Your task to perform on an android device: see tabs open on other devices in the chrome app Image 0: 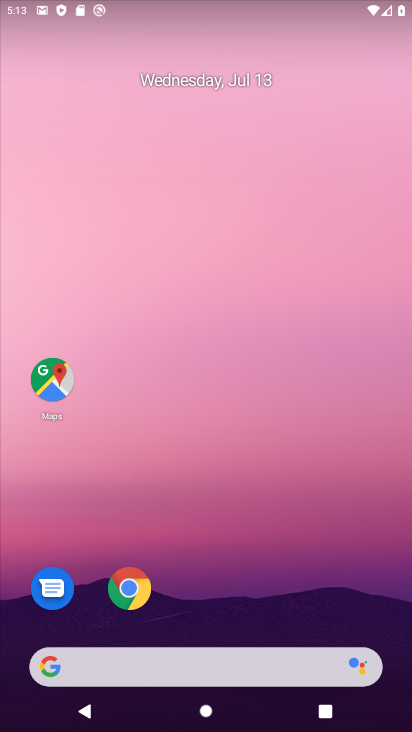
Step 0: press home button
Your task to perform on an android device: see tabs open on other devices in the chrome app Image 1: 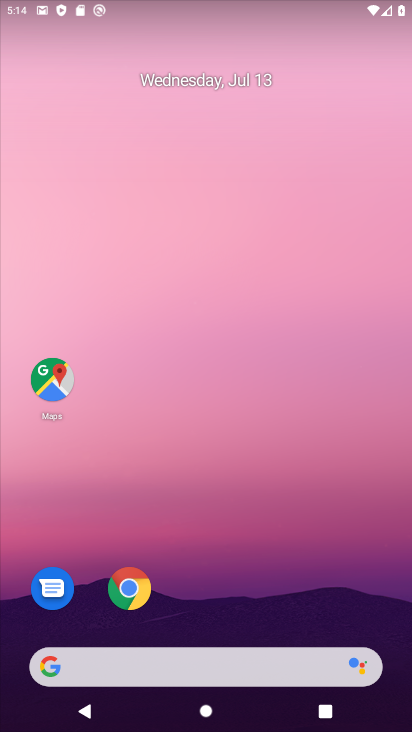
Step 1: drag from (202, 468) to (204, 208)
Your task to perform on an android device: see tabs open on other devices in the chrome app Image 2: 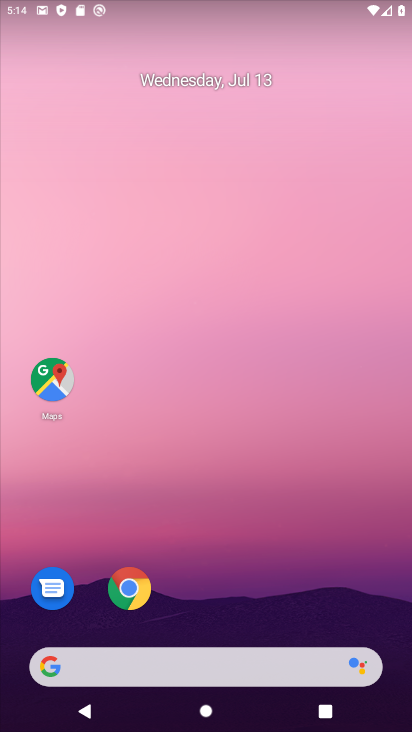
Step 2: click (124, 583)
Your task to perform on an android device: see tabs open on other devices in the chrome app Image 3: 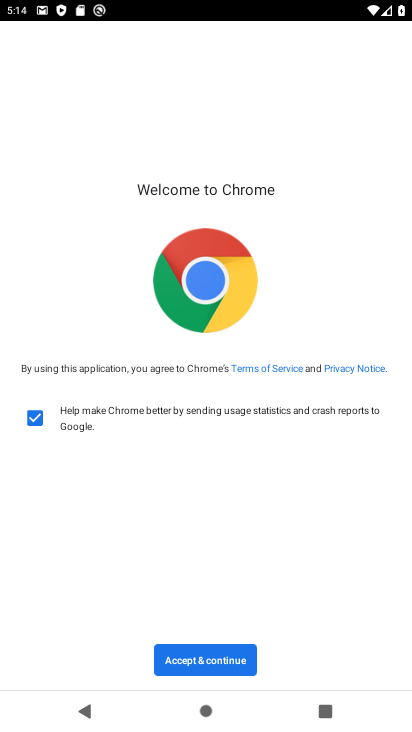
Step 3: click (204, 661)
Your task to perform on an android device: see tabs open on other devices in the chrome app Image 4: 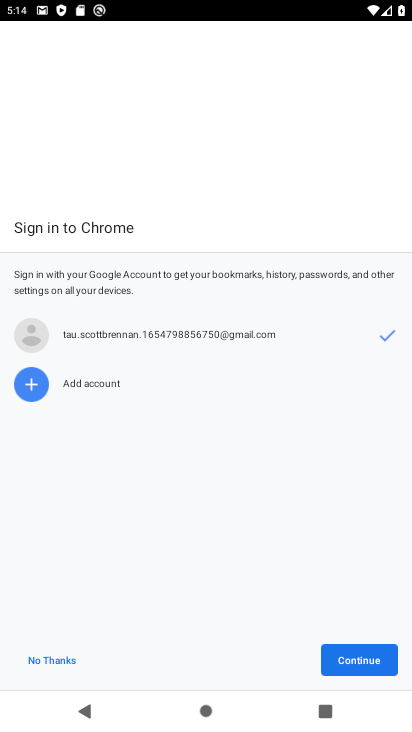
Step 4: click (346, 658)
Your task to perform on an android device: see tabs open on other devices in the chrome app Image 5: 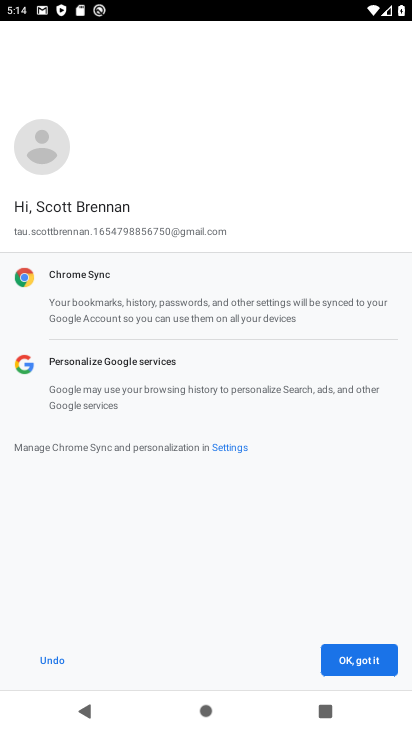
Step 5: click (346, 658)
Your task to perform on an android device: see tabs open on other devices in the chrome app Image 6: 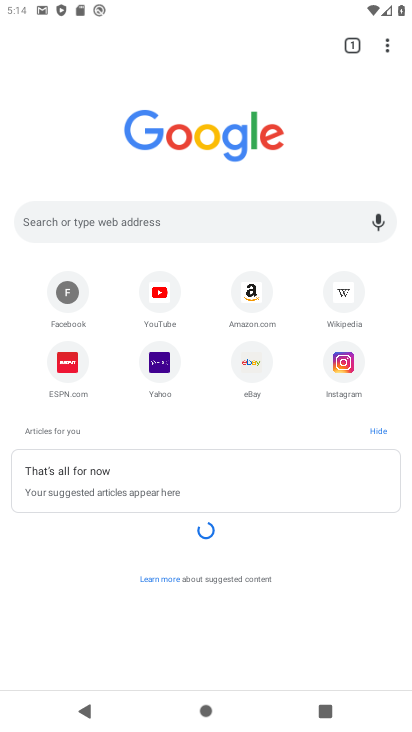
Step 6: click (354, 43)
Your task to perform on an android device: see tabs open on other devices in the chrome app Image 7: 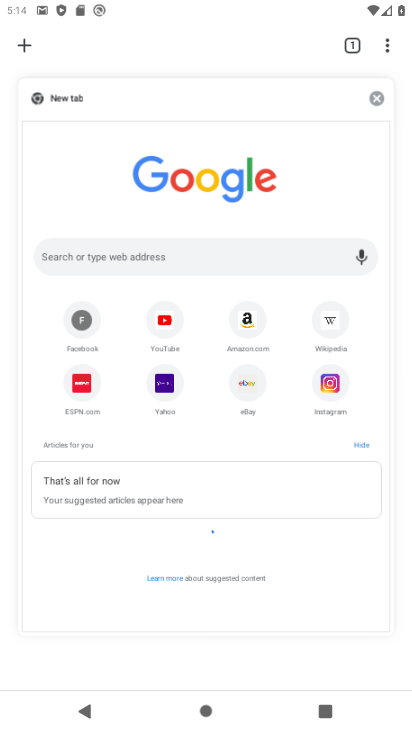
Step 7: click (21, 45)
Your task to perform on an android device: see tabs open on other devices in the chrome app Image 8: 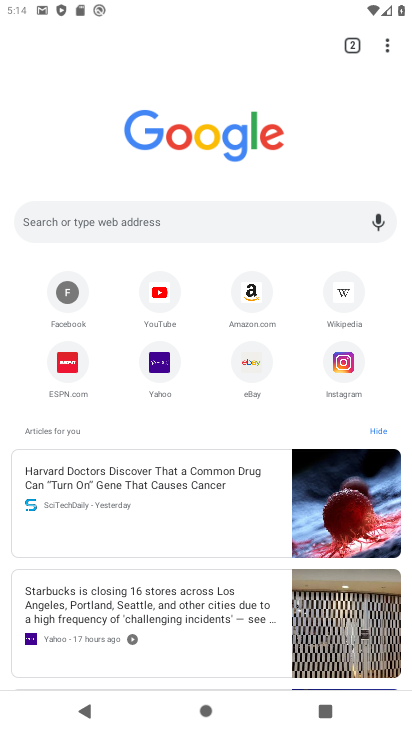
Step 8: click (385, 49)
Your task to perform on an android device: see tabs open on other devices in the chrome app Image 9: 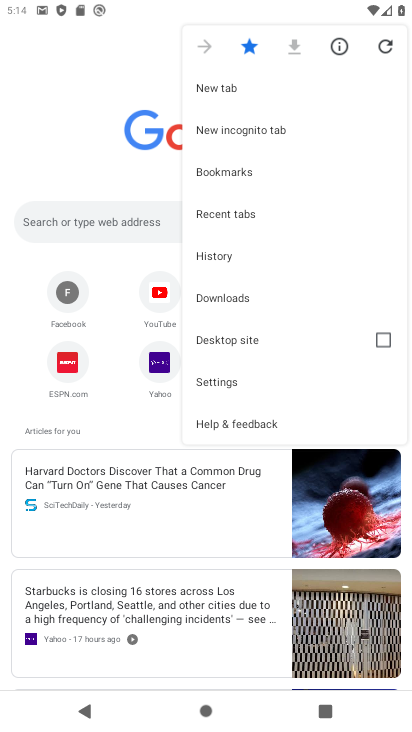
Step 9: click (235, 219)
Your task to perform on an android device: see tabs open on other devices in the chrome app Image 10: 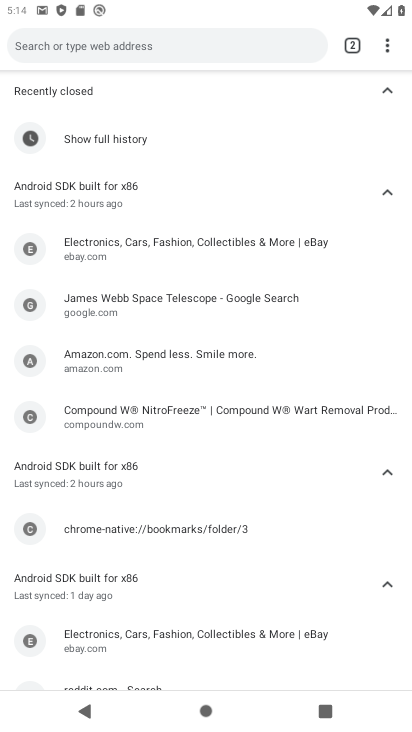
Step 10: task complete